Your task to perform on an android device: turn off javascript in the chrome app Image 0: 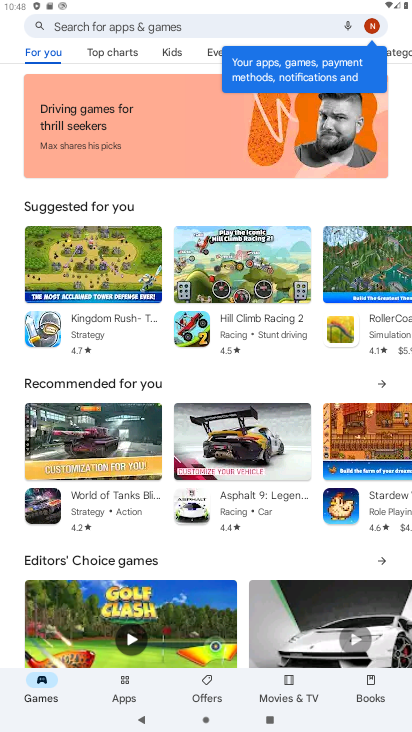
Step 0: press home button
Your task to perform on an android device: turn off javascript in the chrome app Image 1: 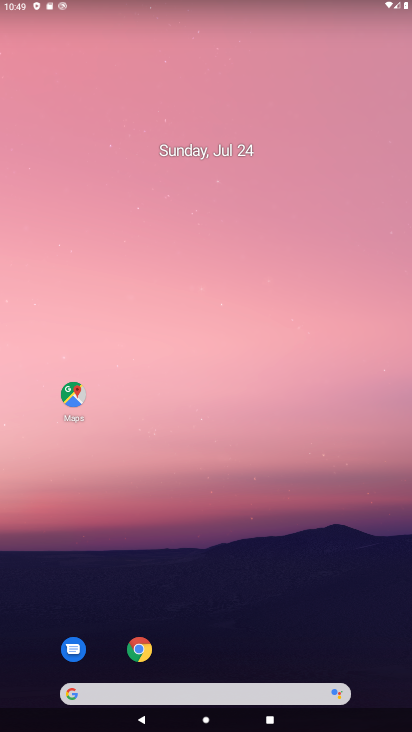
Step 1: click (149, 645)
Your task to perform on an android device: turn off javascript in the chrome app Image 2: 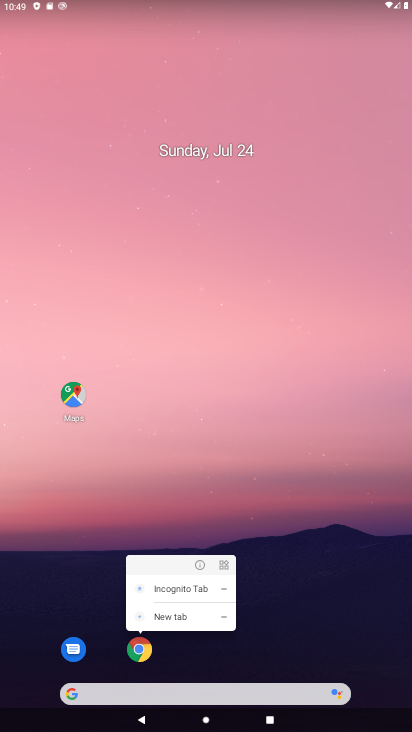
Step 2: click (134, 664)
Your task to perform on an android device: turn off javascript in the chrome app Image 3: 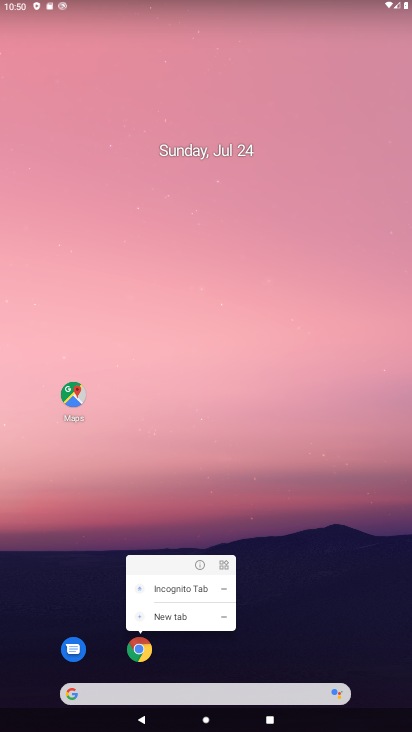
Step 3: click (134, 664)
Your task to perform on an android device: turn off javascript in the chrome app Image 4: 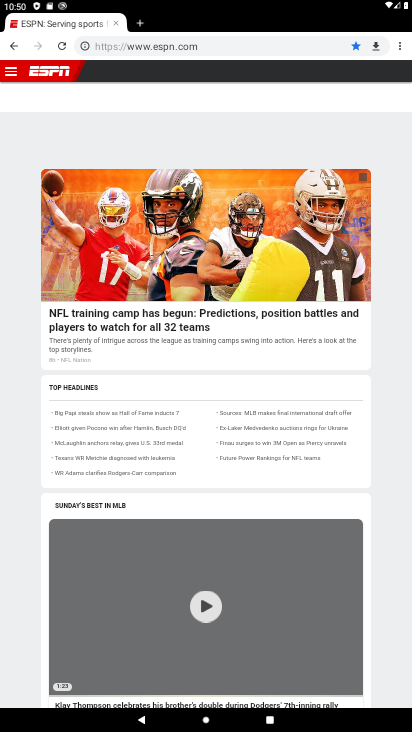
Step 4: drag from (400, 52) to (303, 304)
Your task to perform on an android device: turn off javascript in the chrome app Image 5: 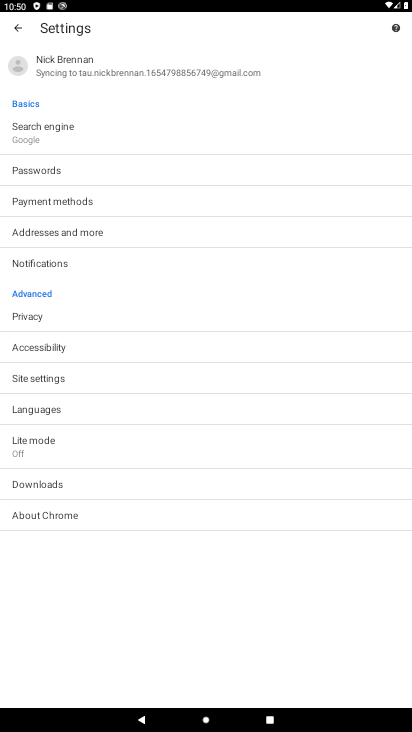
Step 5: click (84, 389)
Your task to perform on an android device: turn off javascript in the chrome app Image 6: 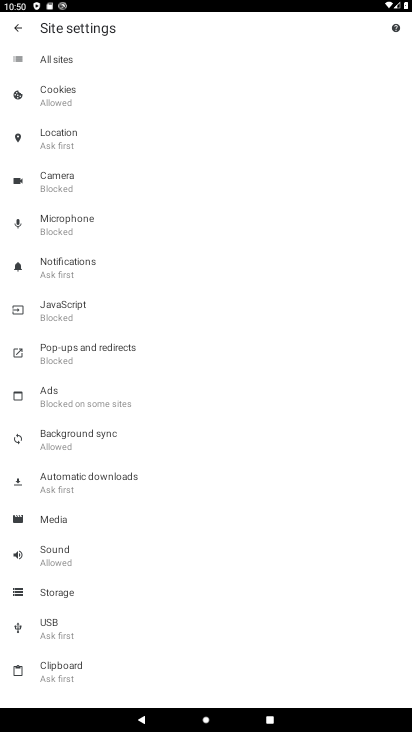
Step 6: click (76, 305)
Your task to perform on an android device: turn off javascript in the chrome app Image 7: 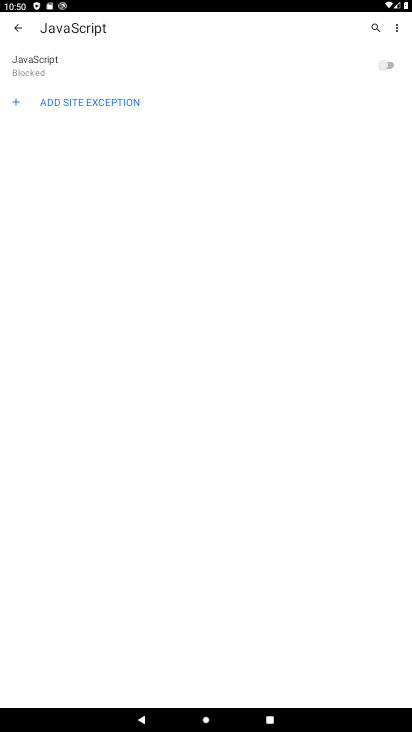
Step 7: task complete